Your task to perform on an android device: turn on improve location accuracy Image 0: 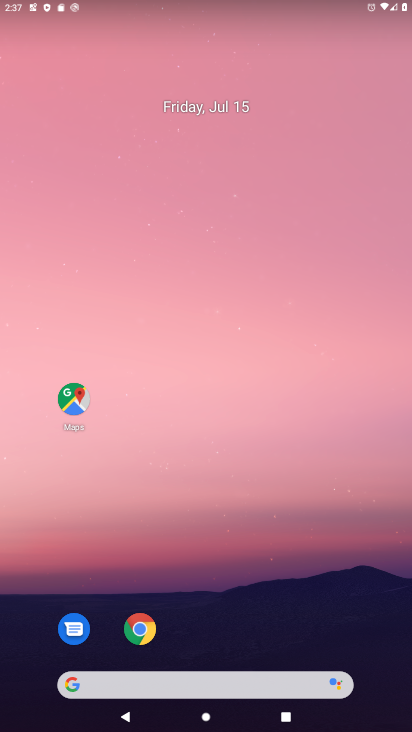
Step 0: drag from (288, 489) to (270, 64)
Your task to perform on an android device: turn on improve location accuracy Image 1: 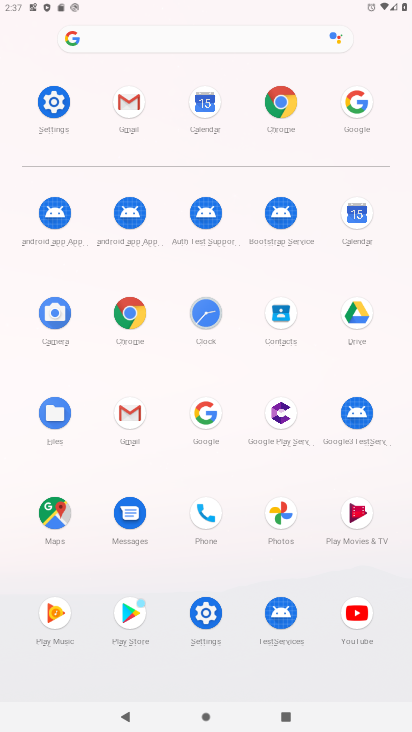
Step 1: click (48, 104)
Your task to perform on an android device: turn on improve location accuracy Image 2: 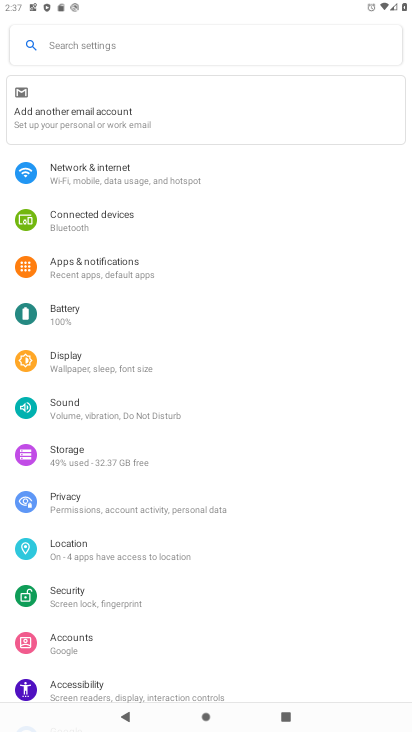
Step 2: drag from (198, 643) to (229, 226)
Your task to perform on an android device: turn on improve location accuracy Image 3: 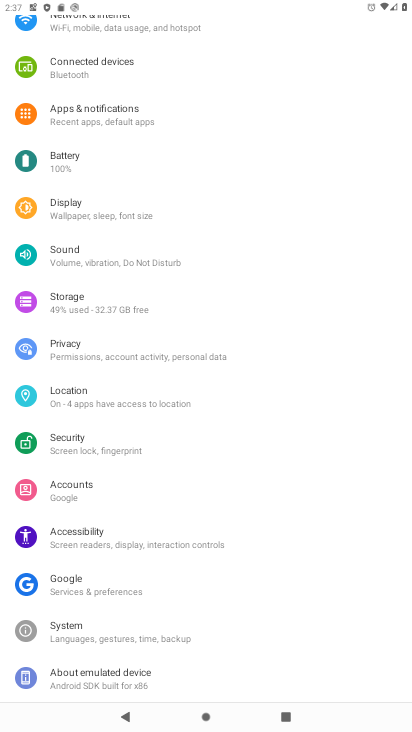
Step 3: click (150, 397)
Your task to perform on an android device: turn on improve location accuracy Image 4: 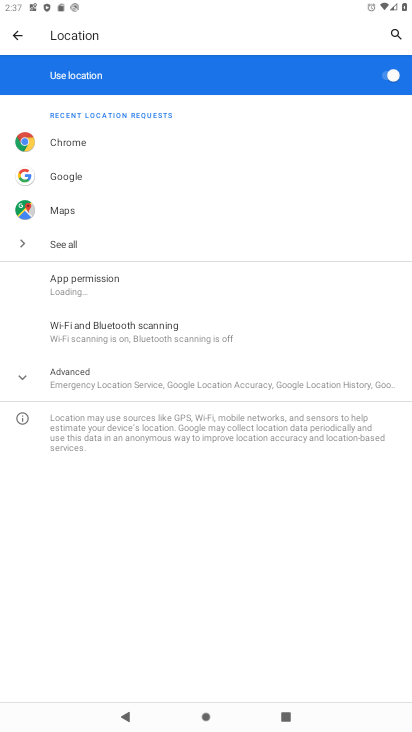
Step 4: click (150, 396)
Your task to perform on an android device: turn on improve location accuracy Image 5: 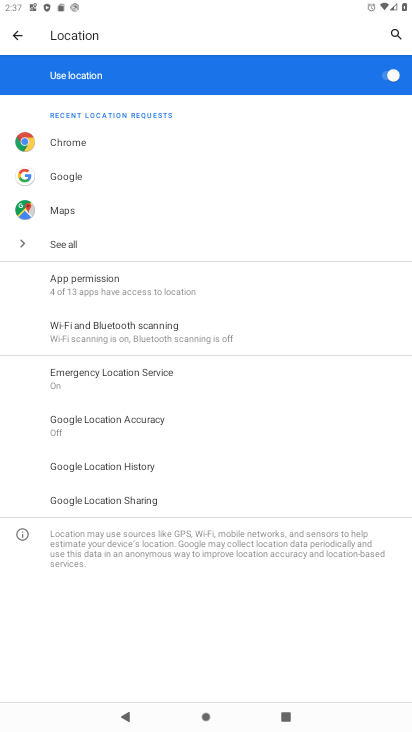
Step 5: click (127, 430)
Your task to perform on an android device: turn on improve location accuracy Image 6: 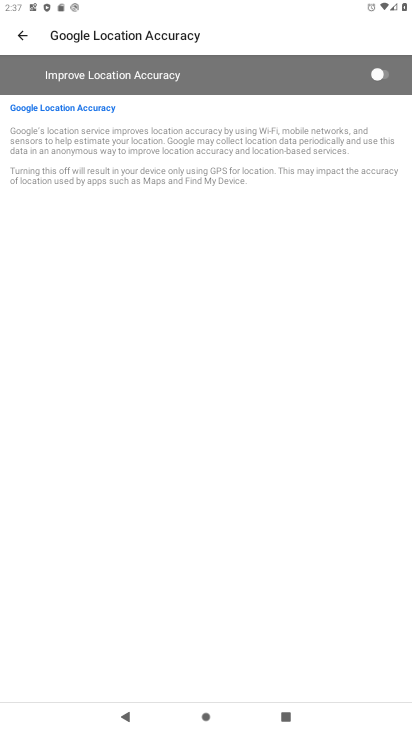
Step 6: click (374, 77)
Your task to perform on an android device: turn on improve location accuracy Image 7: 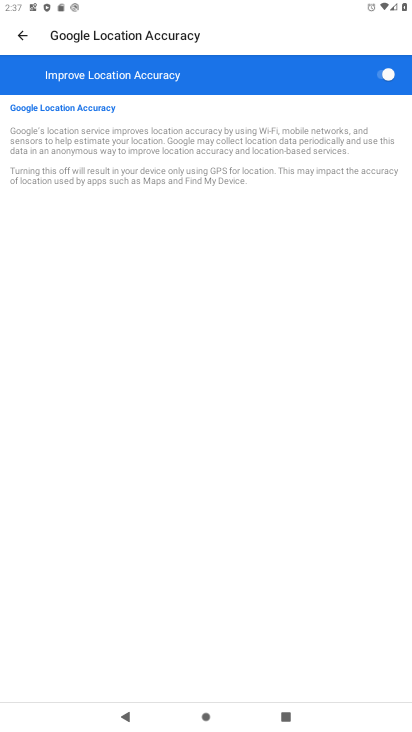
Step 7: task complete